Your task to perform on an android device: read, delete, or share a saved page in the chrome app Image 0: 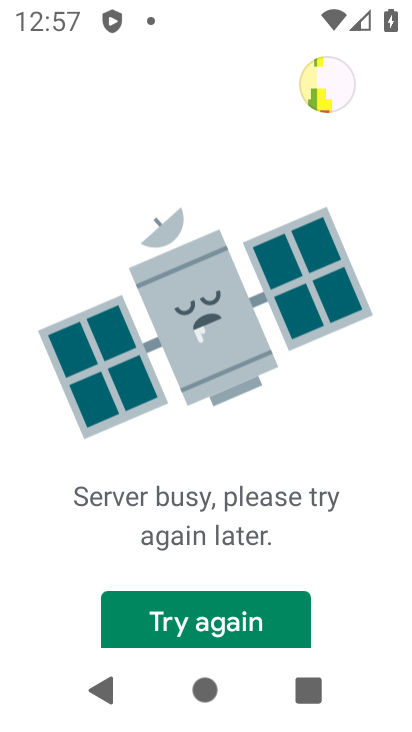
Step 0: press home button
Your task to perform on an android device: read, delete, or share a saved page in the chrome app Image 1: 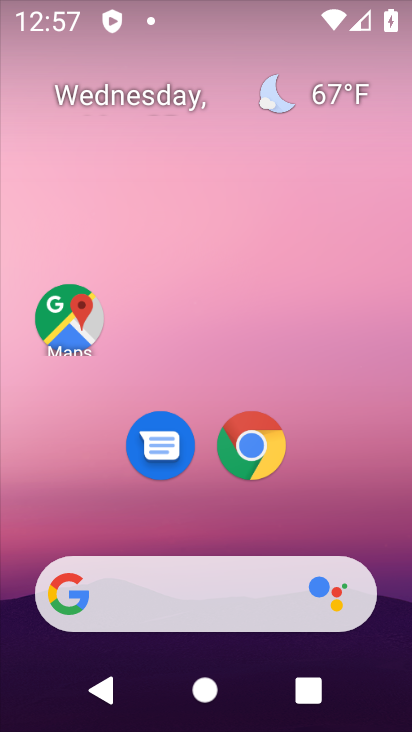
Step 1: drag from (393, 576) to (311, 142)
Your task to perform on an android device: read, delete, or share a saved page in the chrome app Image 2: 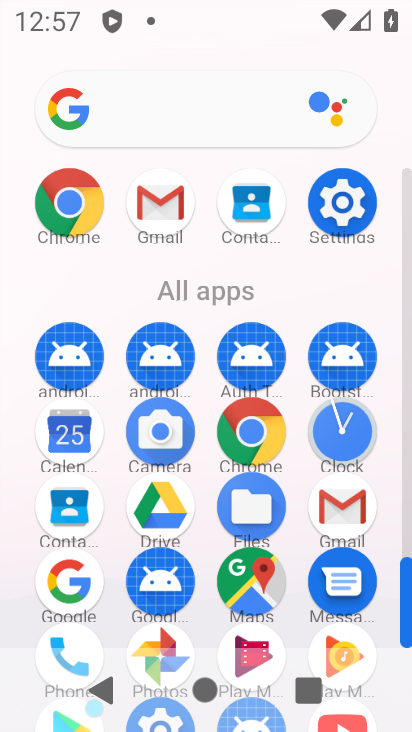
Step 2: click (83, 203)
Your task to perform on an android device: read, delete, or share a saved page in the chrome app Image 3: 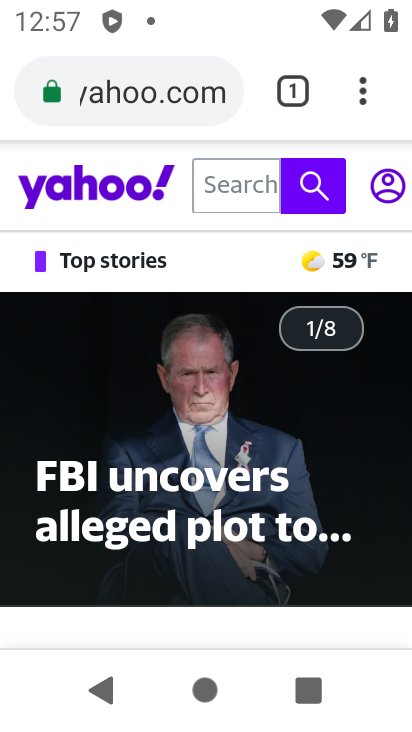
Step 3: click (363, 75)
Your task to perform on an android device: read, delete, or share a saved page in the chrome app Image 4: 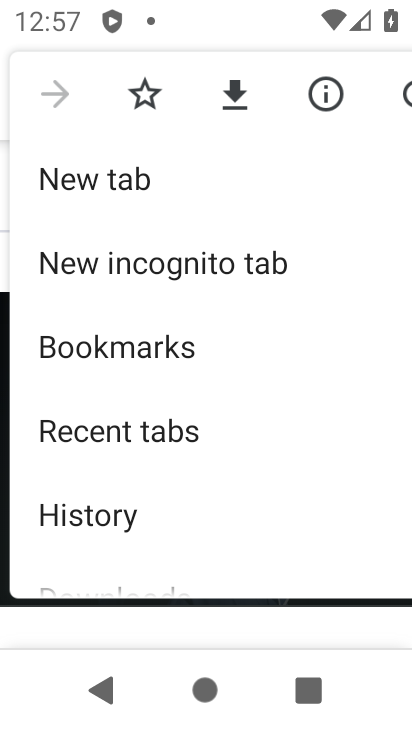
Step 4: drag from (141, 561) to (133, 186)
Your task to perform on an android device: read, delete, or share a saved page in the chrome app Image 5: 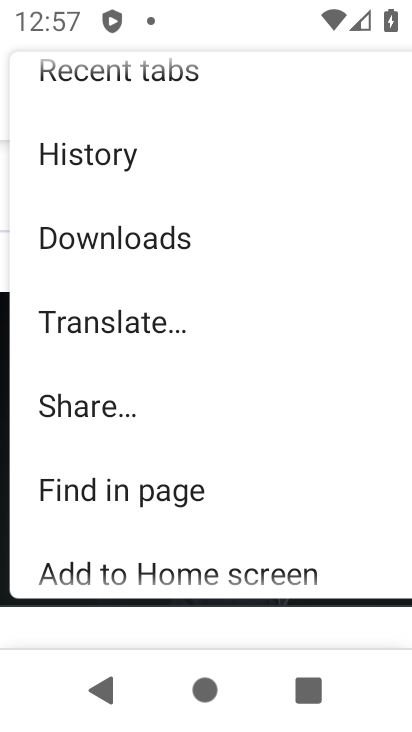
Step 5: click (150, 245)
Your task to perform on an android device: read, delete, or share a saved page in the chrome app Image 6: 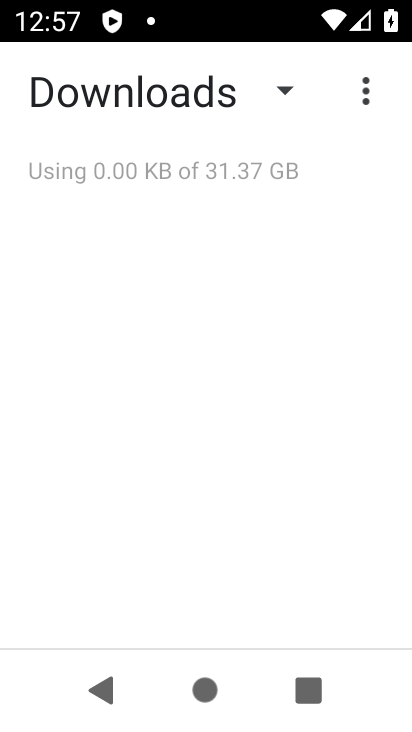
Step 6: click (251, 102)
Your task to perform on an android device: read, delete, or share a saved page in the chrome app Image 7: 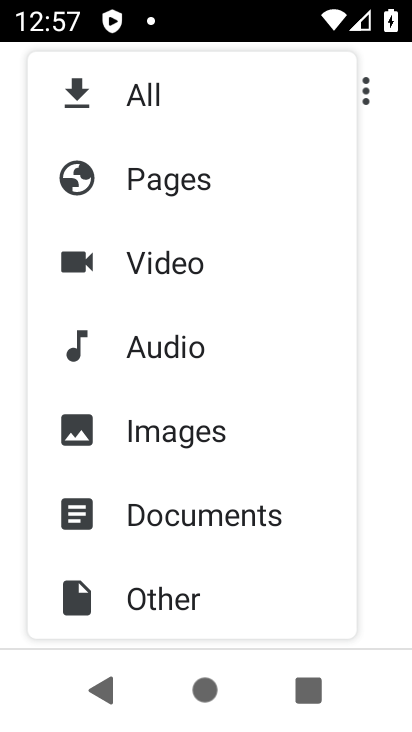
Step 7: click (234, 192)
Your task to perform on an android device: read, delete, or share a saved page in the chrome app Image 8: 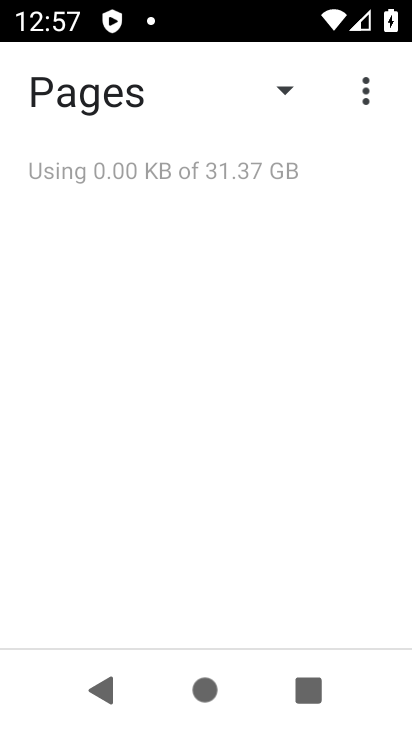
Step 8: task complete